Your task to perform on an android device: change notifications settings Image 0: 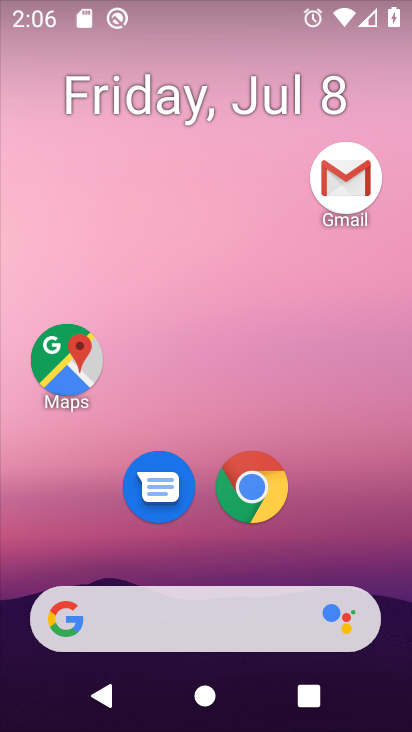
Step 0: drag from (379, 556) to (394, 183)
Your task to perform on an android device: change notifications settings Image 1: 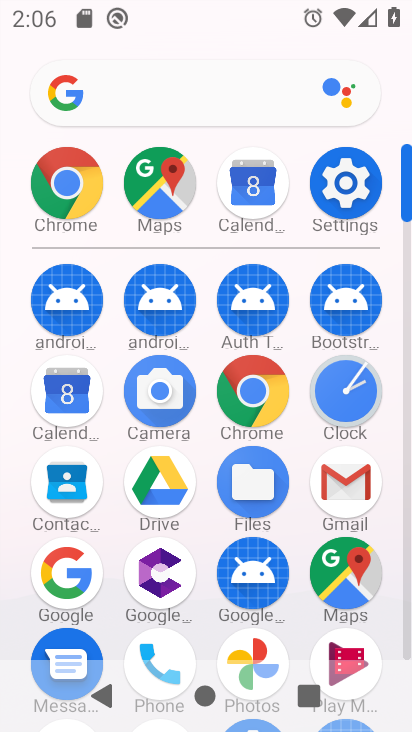
Step 1: click (350, 208)
Your task to perform on an android device: change notifications settings Image 2: 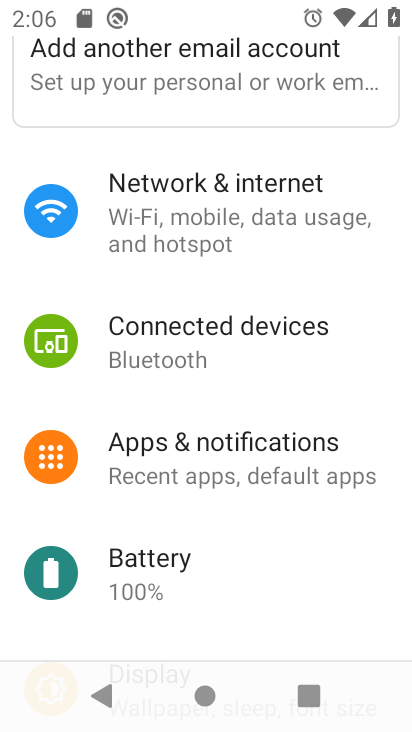
Step 2: click (351, 447)
Your task to perform on an android device: change notifications settings Image 3: 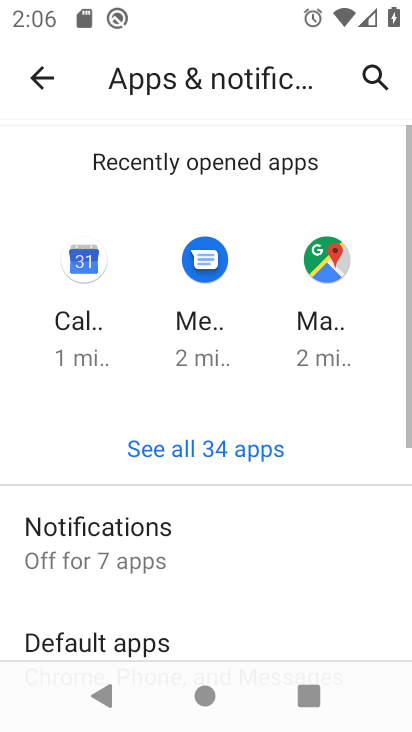
Step 3: drag from (330, 526) to (327, 401)
Your task to perform on an android device: change notifications settings Image 4: 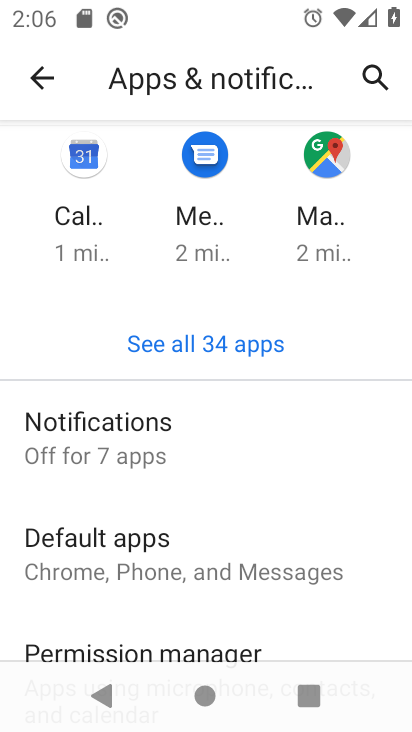
Step 4: click (299, 432)
Your task to perform on an android device: change notifications settings Image 5: 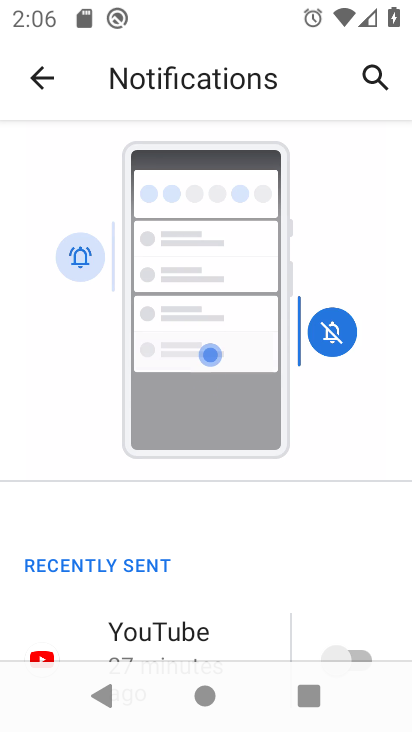
Step 5: drag from (296, 488) to (294, 400)
Your task to perform on an android device: change notifications settings Image 6: 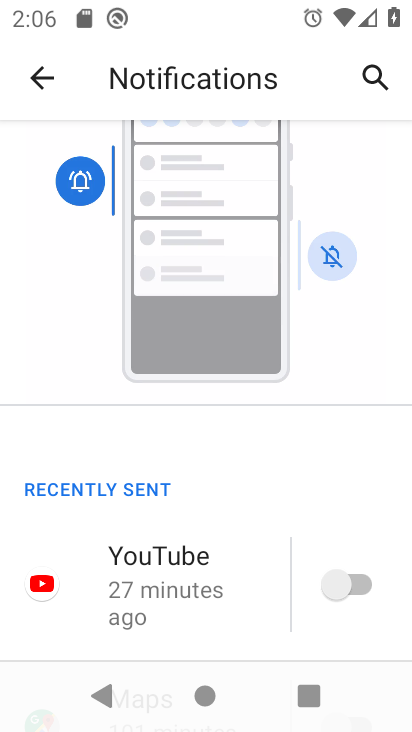
Step 6: drag from (306, 486) to (317, 391)
Your task to perform on an android device: change notifications settings Image 7: 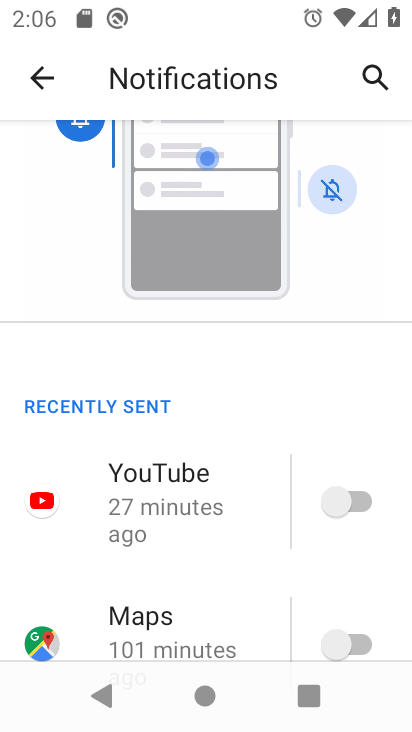
Step 7: drag from (300, 530) to (307, 419)
Your task to perform on an android device: change notifications settings Image 8: 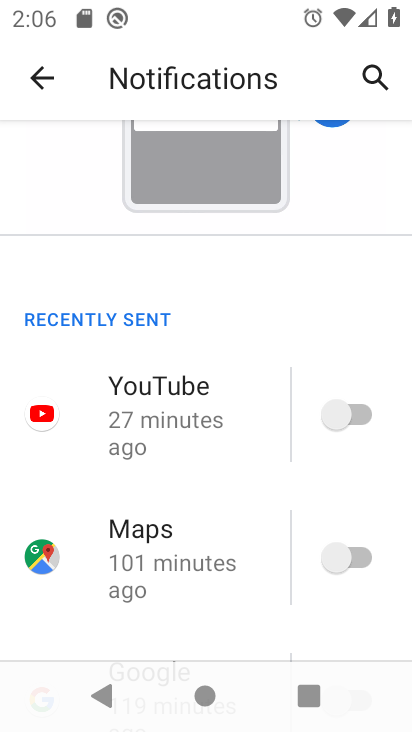
Step 8: click (326, 415)
Your task to perform on an android device: change notifications settings Image 9: 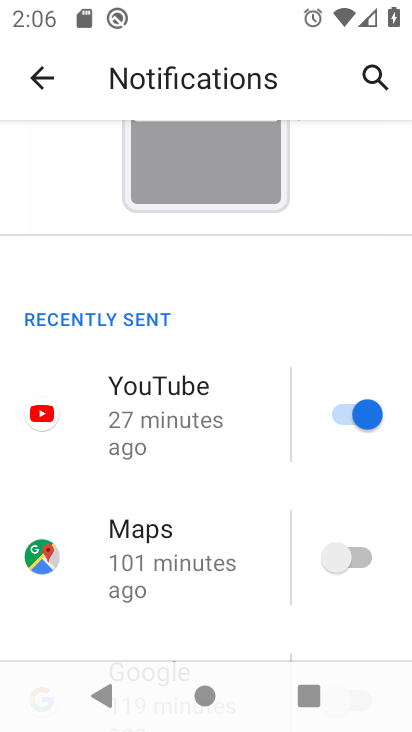
Step 9: click (328, 561)
Your task to perform on an android device: change notifications settings Image 10: 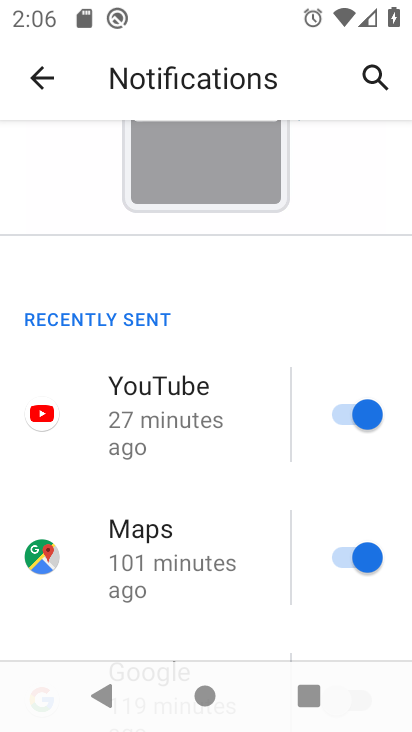
Step 10: drag from (321, 487) to (323, 312)
Your task to perform on an android device: change notifications settings Image 11: 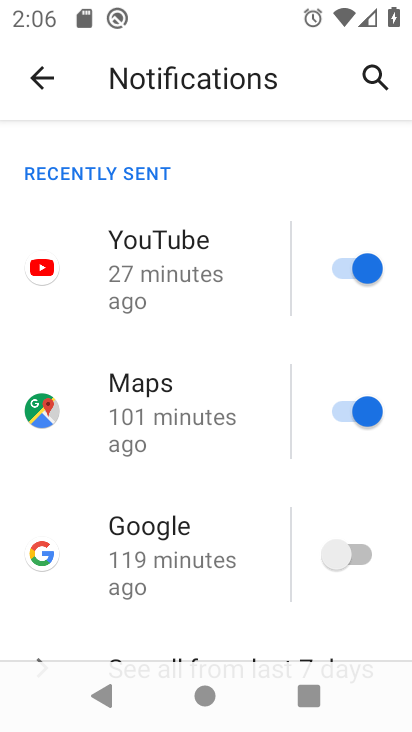
Step 11: click (323, 552)
Your task to perform on an android device: change notifications settings Image 12: 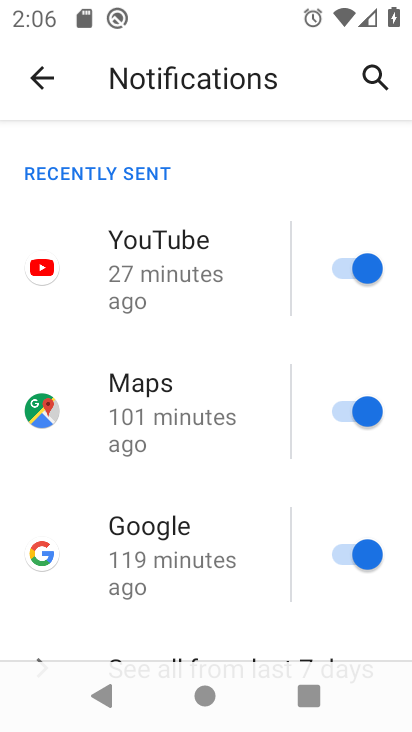
Step 12: task complete